Your task to perform on an android device: check battery use Image 0: 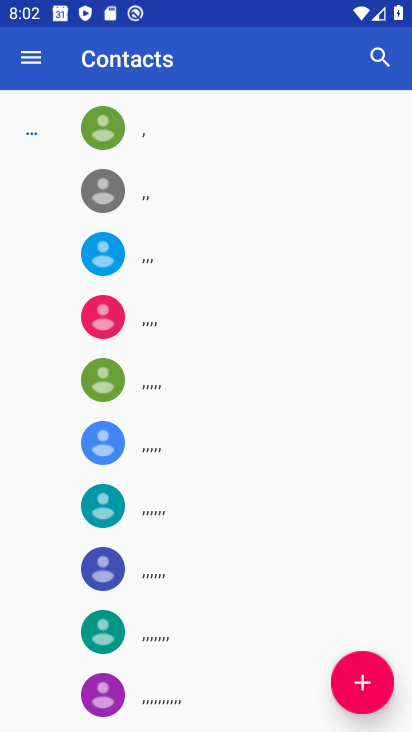
Step 0: press home button
Your task to perform on an android device: check battery use Image 1: 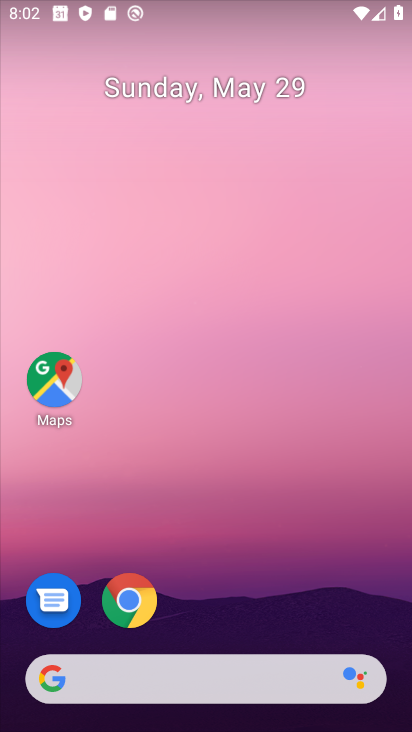
Step 1: drag from (328, 566) to (365, 102)
Your task to perform on an android device: check battery use Image 2: 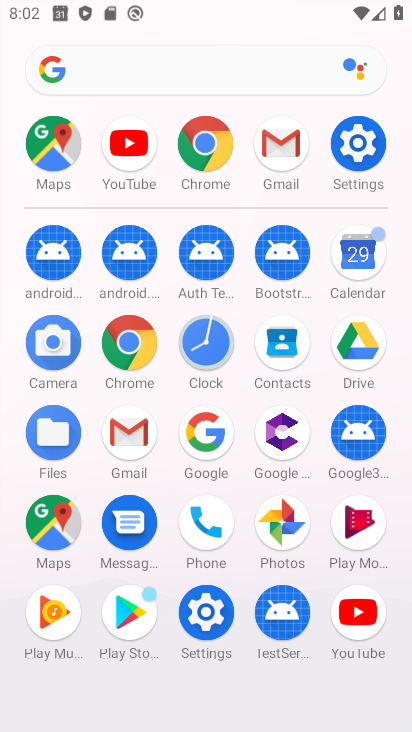
Step 2: click (211, 629)
Your task to perform on an android device: check battery use Image 3: 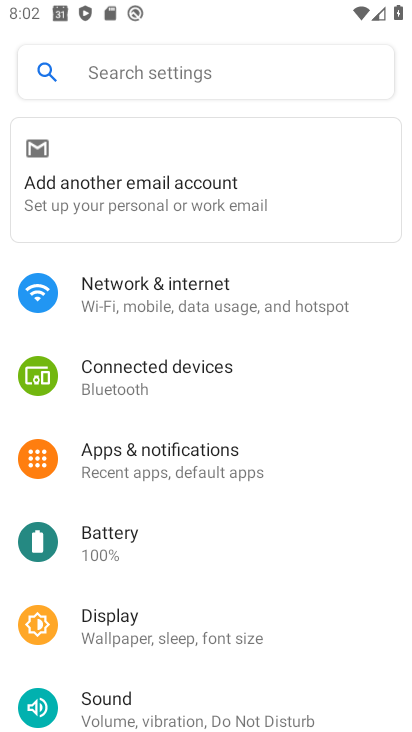
Step 3: click (176, 531)
Your task to perform on an android device: check battery use Image 4: 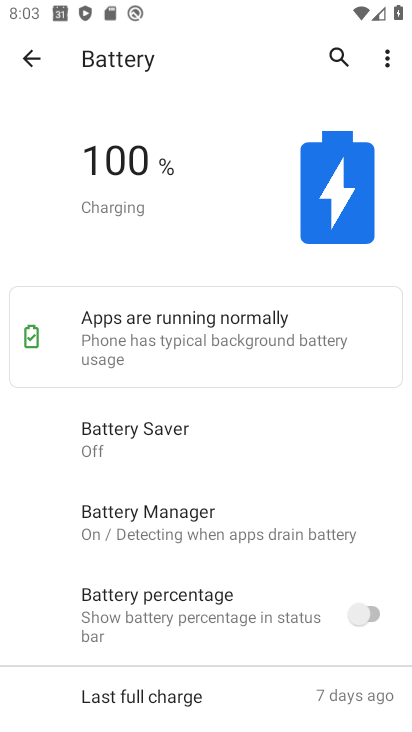
Step 4: task complete